Your task to perform on an android device: Do I have any events tomorrow? Image 0: 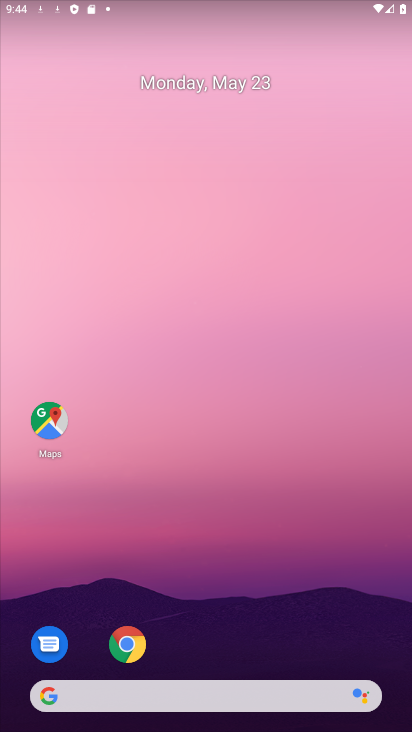
Step 0: drag from (263, 712) to (237, 106)
Your task to perform on an android device: Do I have any events tomorrow? Image 1: 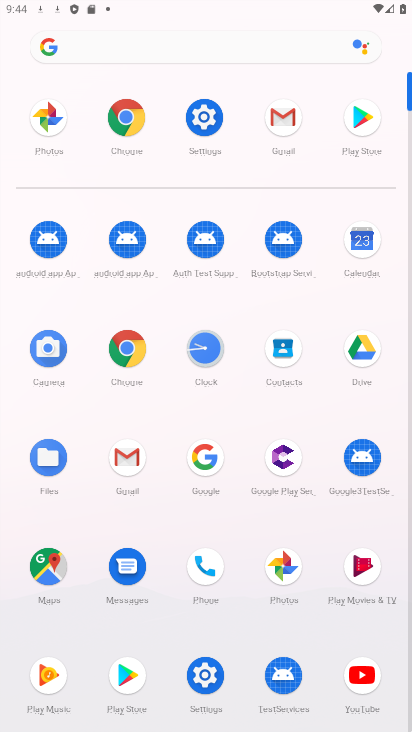
Step 1: click (349, 244)
Your task to perform on an android device: Do I have any events tomorrow? Image 2: 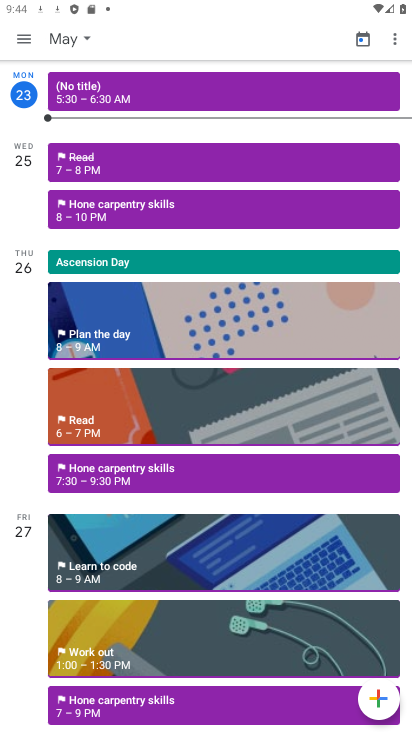
Step 2: click (31, 47)
Your task to perform on an android device: Do I have any events tomorrow? Image 3: 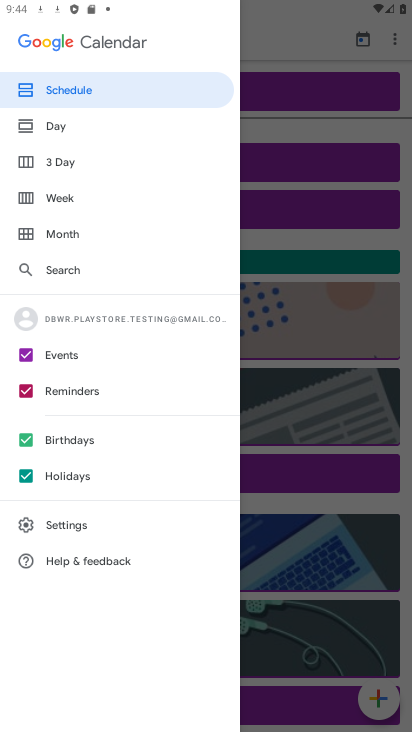
Step 3: click (146, 90)
Your task to perform on an android device: Do I have any events tomorrow? Image 4: 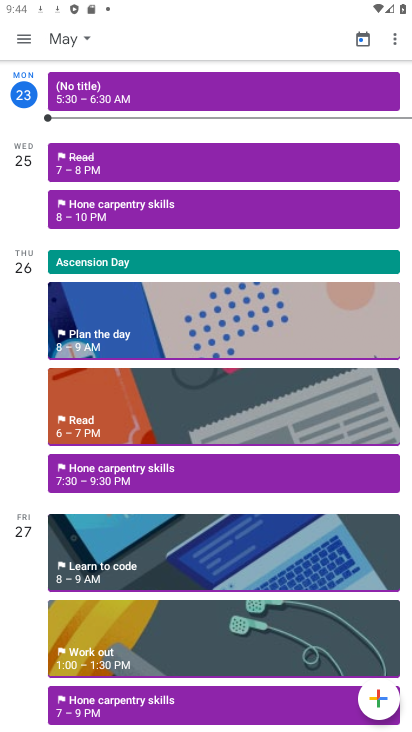
Step 4: task complete